Your task to perform on an android device: change the clock display to analog Image 0: 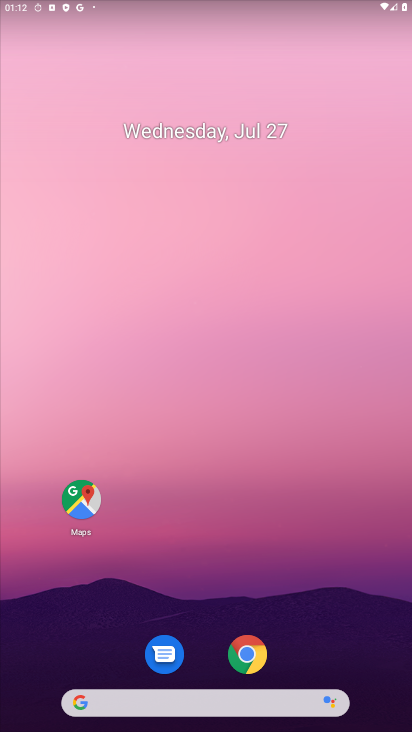
Step 0: drag from (176, 667) to (266, 48)
Your task to perform on an android device: change the clock display to analog Image 1: 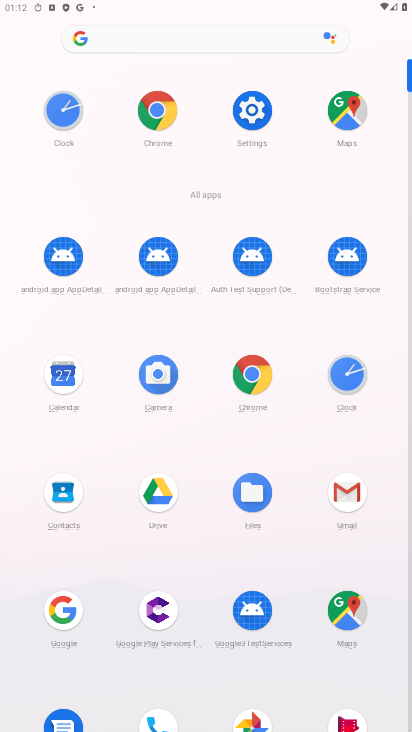
Step 1: click (340, 372)
Your task to perform on an android device: change the clock display to analog Image 2: 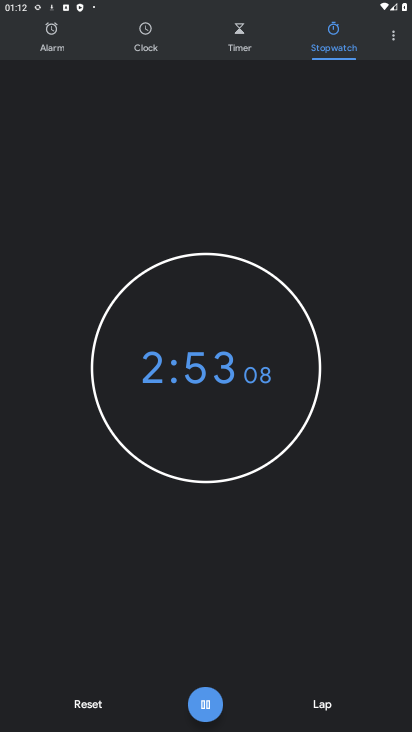
Step 2: click (393, 29)
Your task to perform on an android device: change the clock display to analog Image 3: 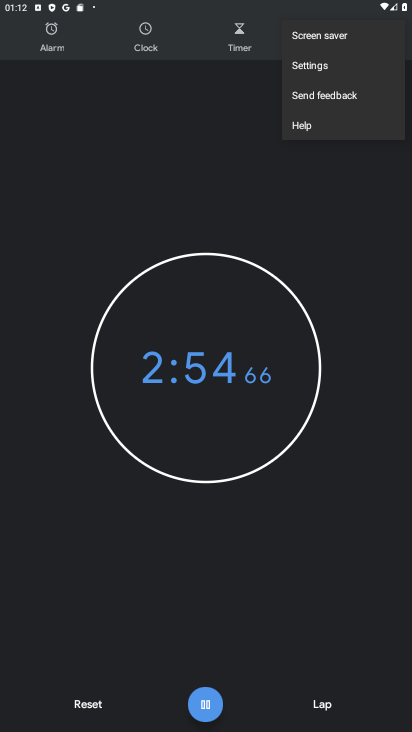
Step 3: click (324, 60)
Your task to perform on an android device: change the clock display to analog Image 4: 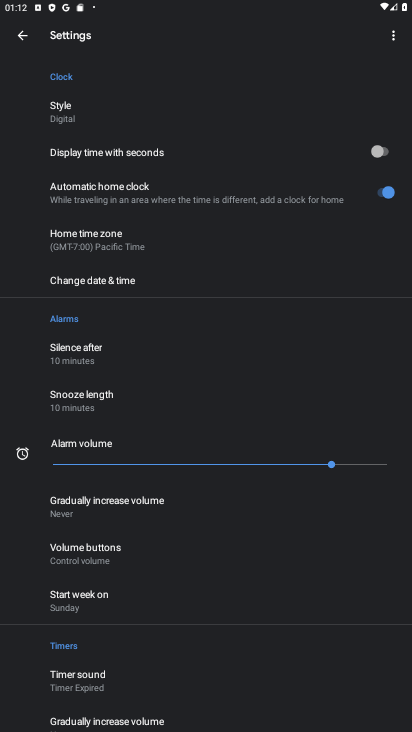
Step 4: click (74, 121)
Your task to perform on an android device: change the clock display to analog Image 5: 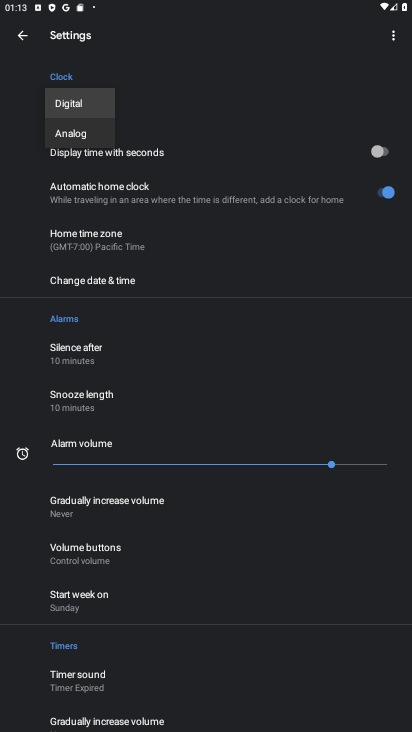
Step 5: click (76, 134)
Your task to perform on an android device: change the clock display to analog Image 6: 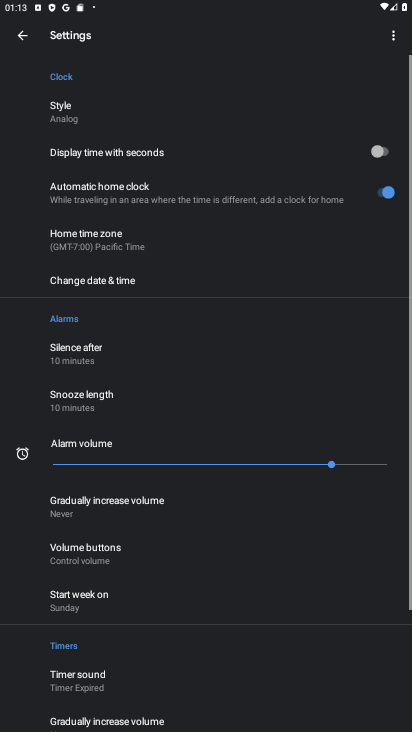
Step 6: task complete